Your task to perform on an android device: Is it going to rain this weekend? Image 0: 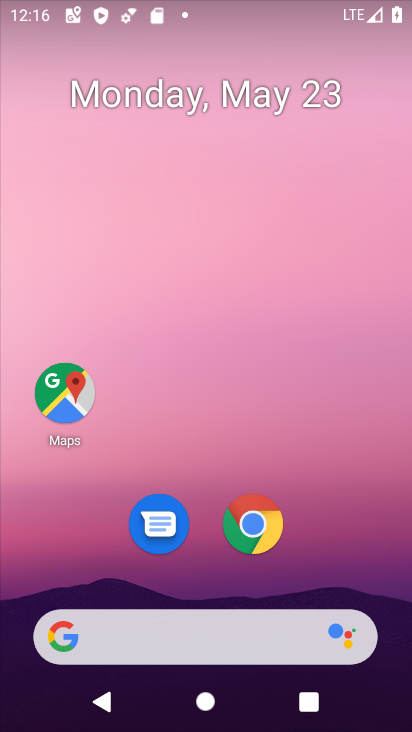
Step 0: click (226, 648)
Your task to perform on an android device: Is it going to rain this weekend? Image 1: 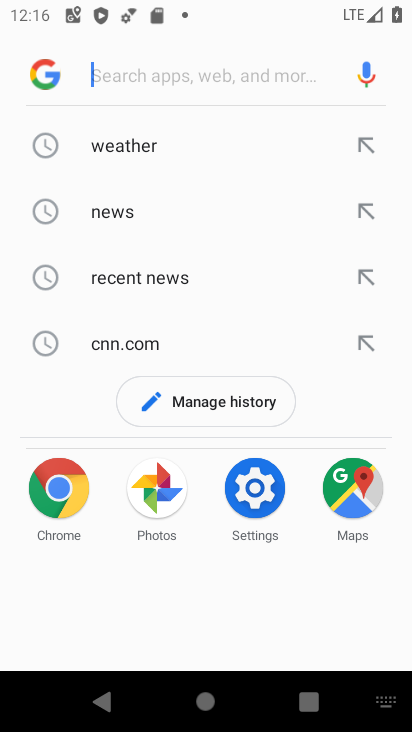
Step 1: click (133, 146)
Your task to perform on an android device: Is it going to rain this weekend? Image 2: 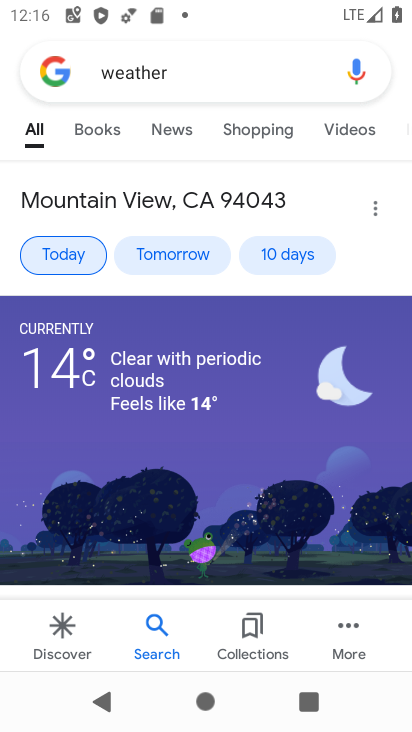
Step 2: click (78, 258)
Your task to perform on an android device: Is it going to rain this weekend? Image 3: 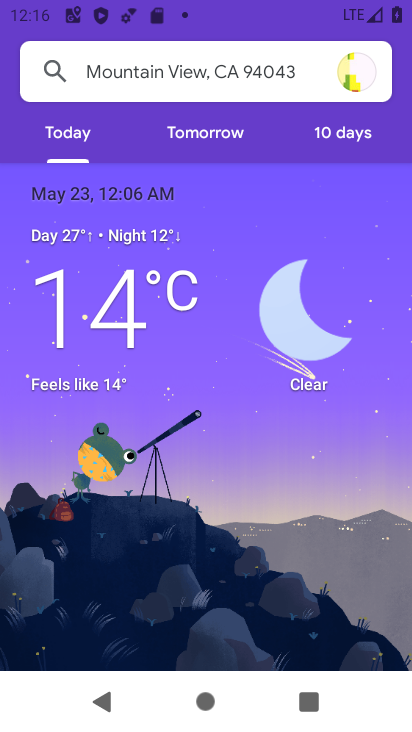
Step 3: click (328, 122)
Your task to perform on an android device: Is it going to rain this weekend? Image 4: 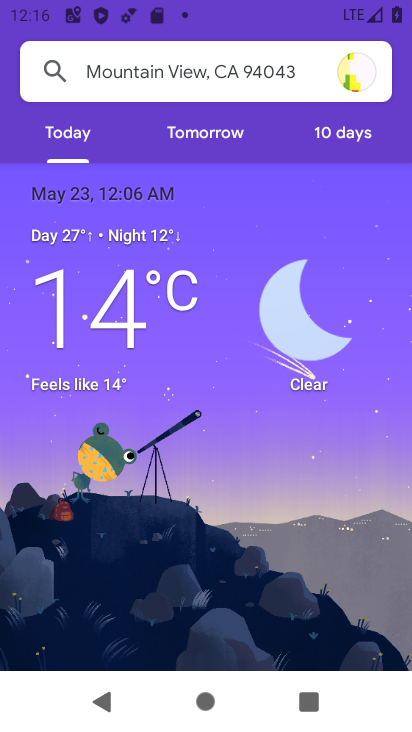
Step 4: click (336, 127)
Your task to perform on an android device: Is it going to rain this weekend? Image 5: 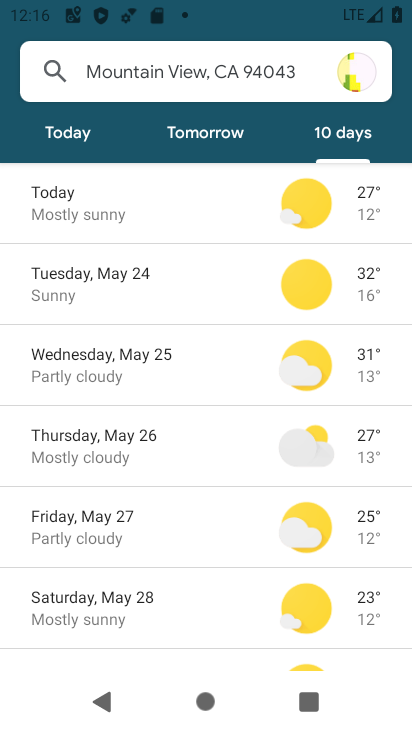
Step 5: click (118, 601)
Your task to perform on an android device: Is it going to rain this weekend? Image 6: 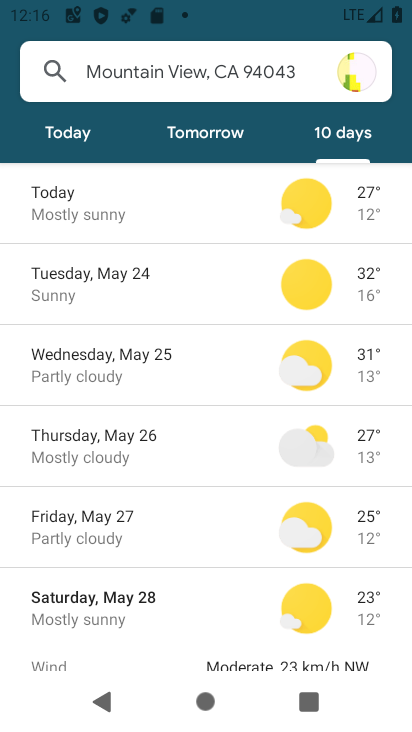
Step 6: task complete